Your task to perform on an android device: What's the weather going to be tomorrow? Image 0: 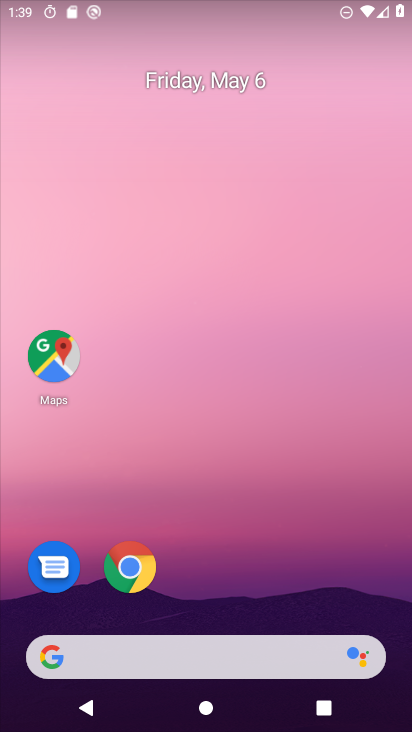
Step 0: drag from (302, 678) to (268, 264)
Your task to perform on an android device: What's the weather going to be tomorrow? Image 1: 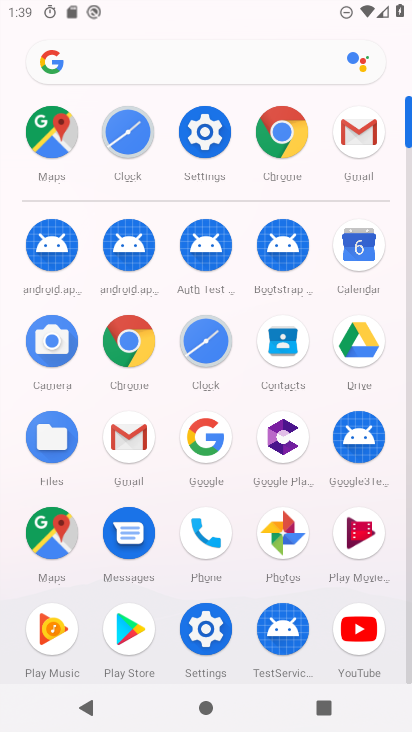
Step 1: click (161, 71)
Your task to perform on an android device: What's the weather going to be tomorrow? Image 2: 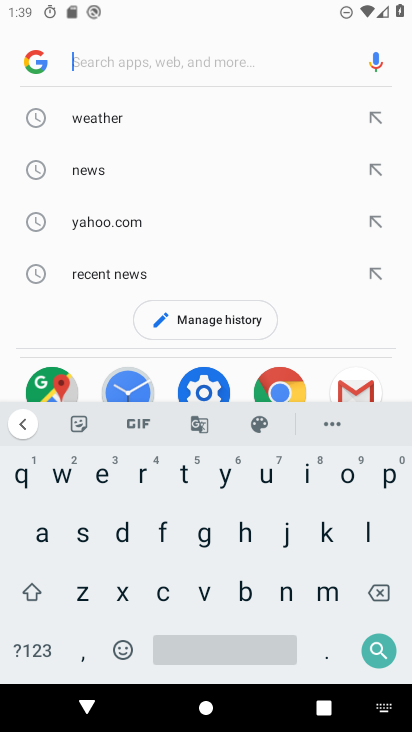
Step 2: click (122, 124)
Your task to perform on an android device: What's the weather going to be tomorrow? Image 3: 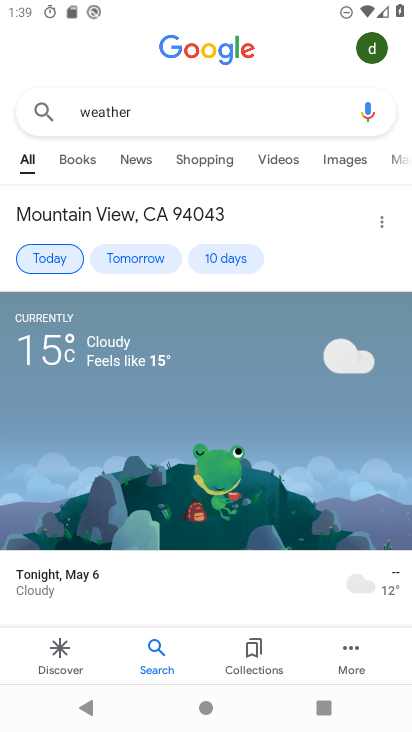
Step 3: click (122, 256)
Your task to perform on an android device: What's the weather going to be tomorrow? Image 4: 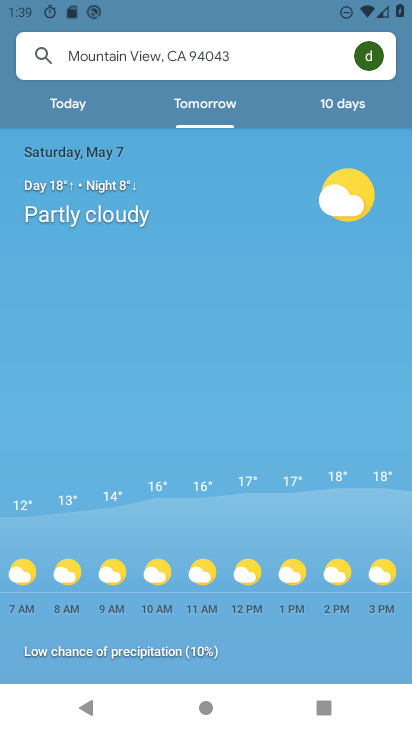
Step 4: task complete